Your task to perform on an android device: Show me popular videos on Youtube Image 0: 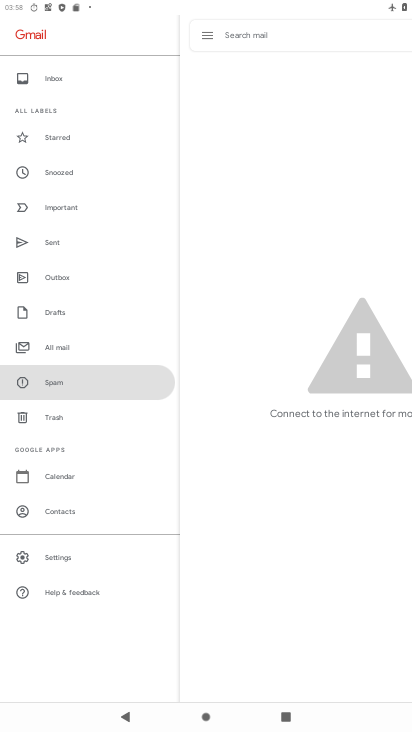
Step 0: press home button
Your task to perform on an android device: Show me popular videos on Youtube Image 1: 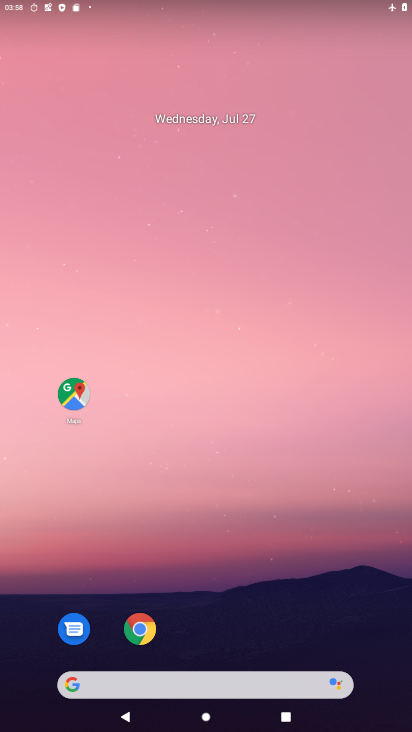
Step 1: drag from (338, 591) to (266, 153)
Your task to perform on an android device: Show me popular videos on Youtube Image 2: 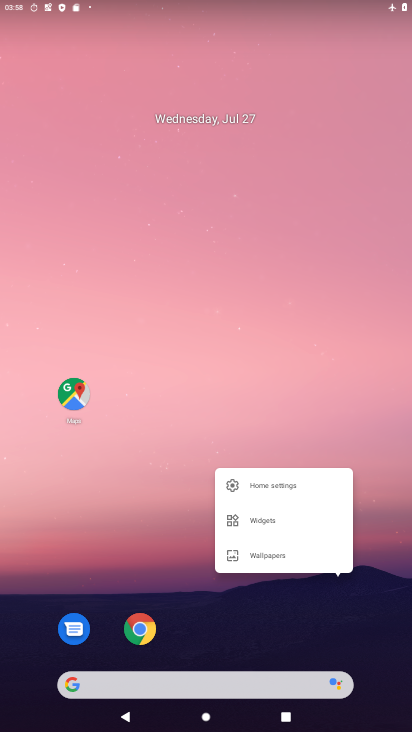
Step 2: click (158, 337)
Your task to perform on an android device: Show me popular videos on Youtube Image 3: 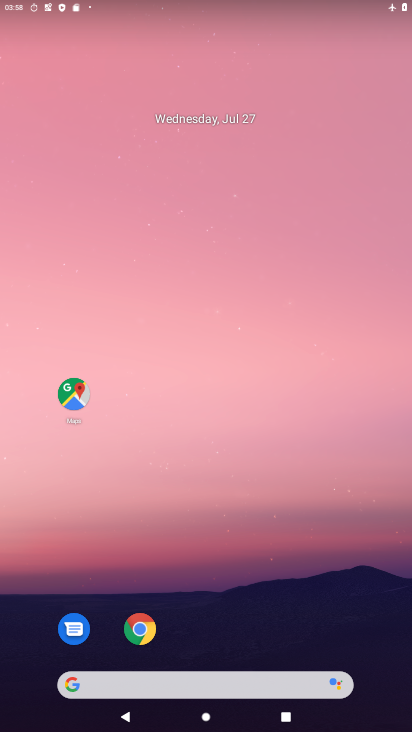
Step 3: drag from (293, 615) to (252, 18)
Your task to perform on an android device: Show me popular videos on Youtube Image 4: 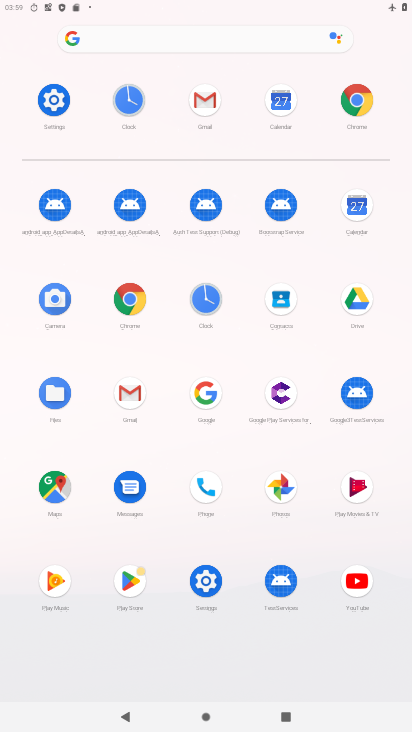
Step 4: click (354, 575)
Your task to perform on an android device: Show me popular videos on Youtube Image 5: 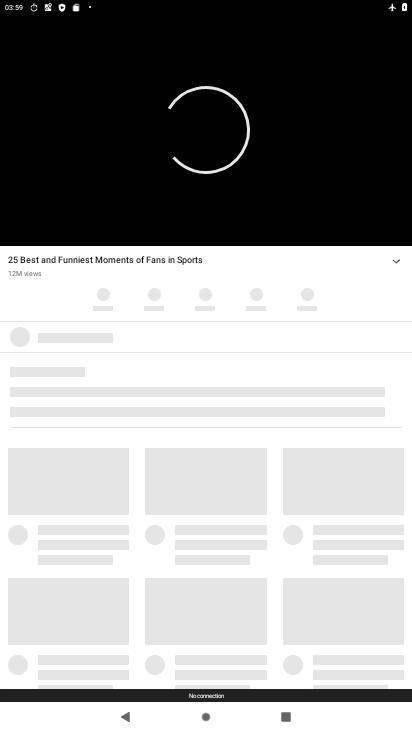
Step 5: drag from (226, 139) to (253, 614)
Your task to perform on an android device: Show me popular videos on Youtube Image 6: 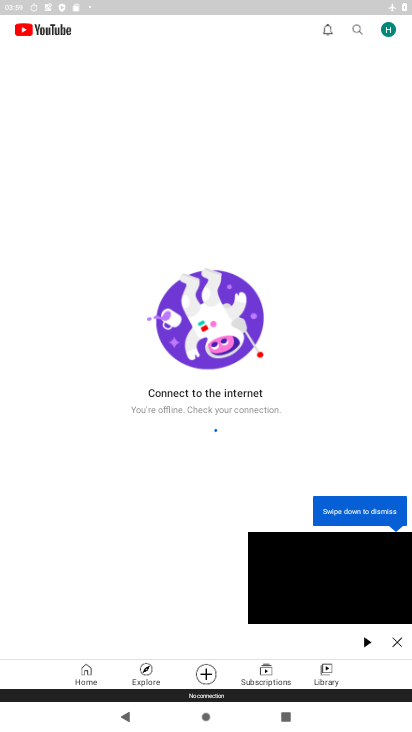
Step 6: click (334, 670)
Your task to perform on an android device: Show me popular videos on Youtube Image 7: 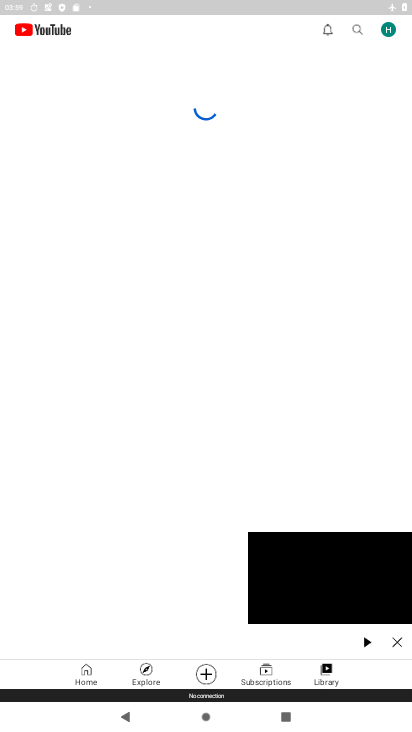
Step 7: task complete